Your task to perform on an android device: Go to Android settings Image 0: 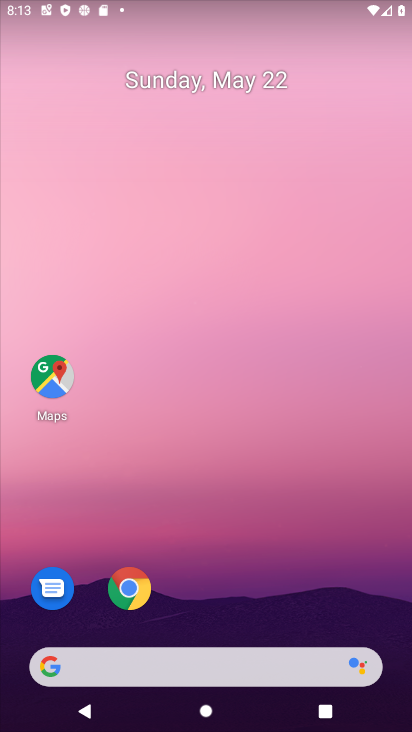
Step 0: drag from (254, 572) to (227, 0)
Your task to perform on an android device: Go to Android settings Image 1: 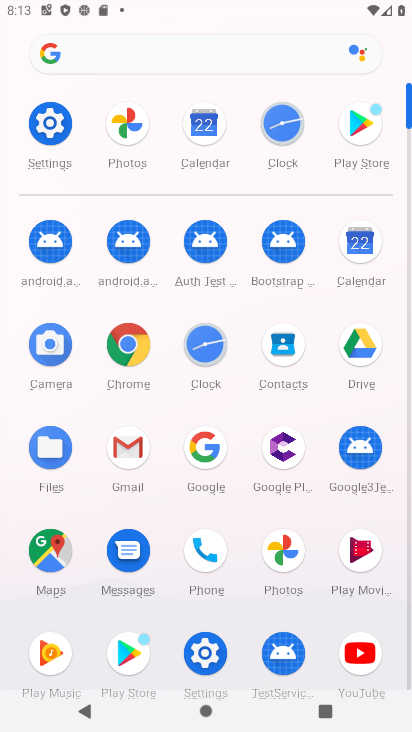
Step 1: click (46, 127)
Your task to perform on an android device: Go to Android settings Image 2: 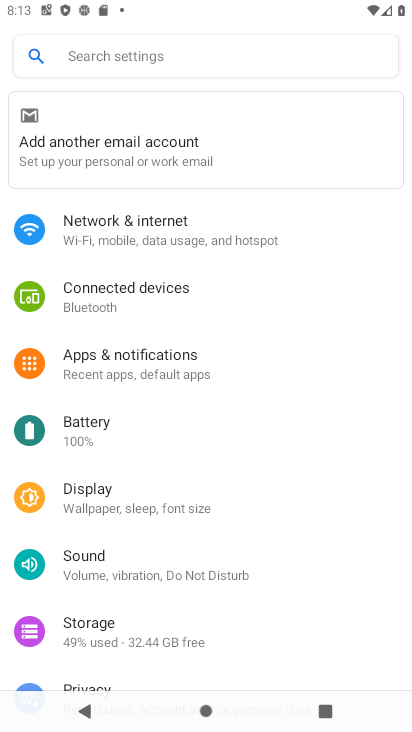
Step 2: task complete